Your task to perform on an android device: What's the weather? Image 0: 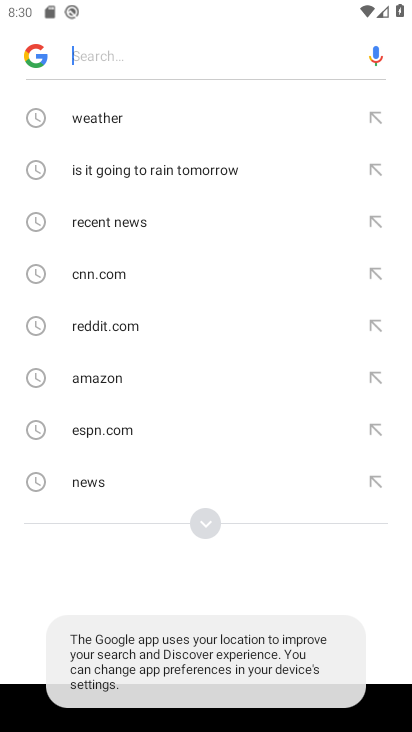
Step 0: press home button
Your task to perform on an android device: What's the weather? Image 1: 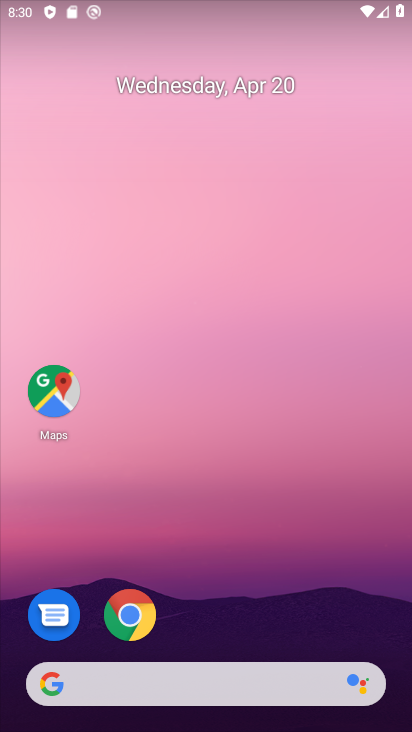
Step 1: drag from (44, 211) to (395, 270)
Your task to perform on an android device: What's the weather? Image 2: 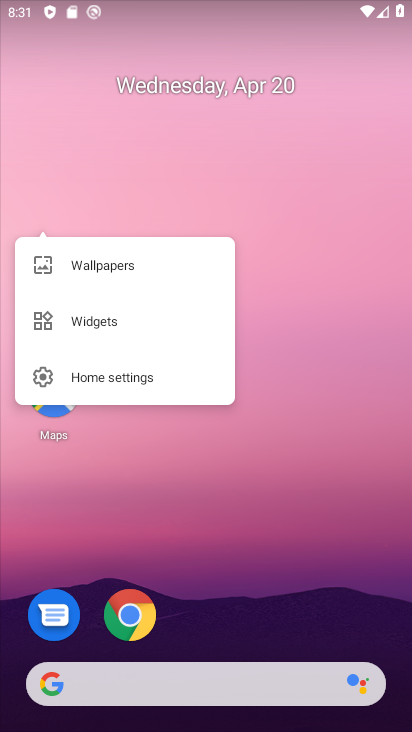
Step 2: drag from (15, 143) to (400, 230)
Your task to perform on an android device: What's the weather? Image 3: 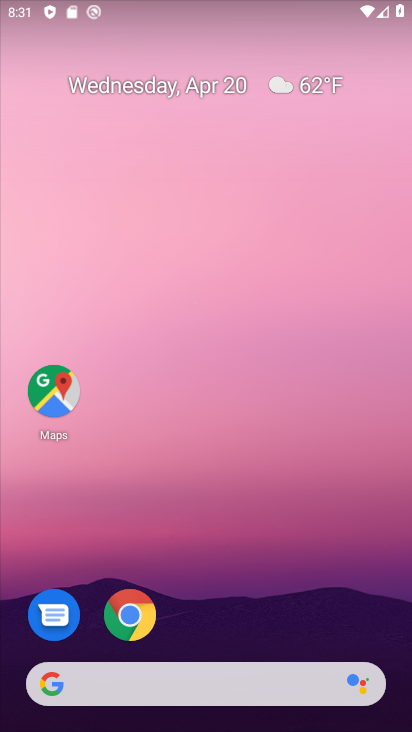
Step 3: drag from (6, 298) to (382, 316)
Your task to perform on an android device: What's the weather? Image 4: 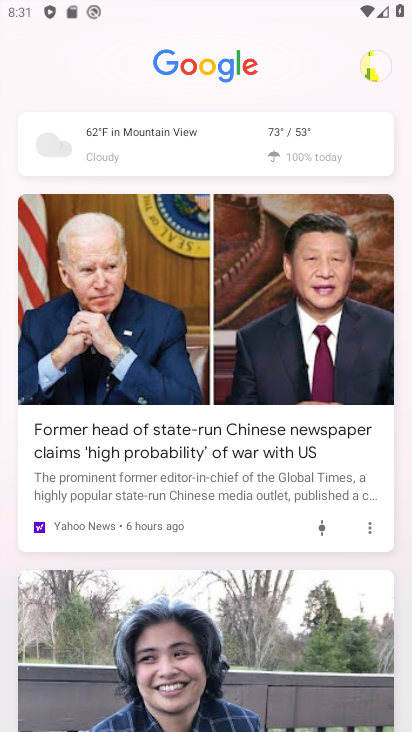
Step 4: click (242, 122)
Your task to perform on an android device: What's the weather? Image 5: 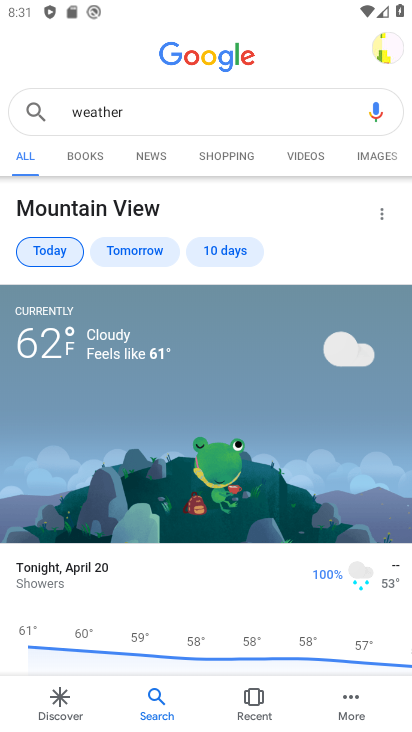
Step 5: task complete